Your task to perform on an android device: turn notification dots on Image 0: 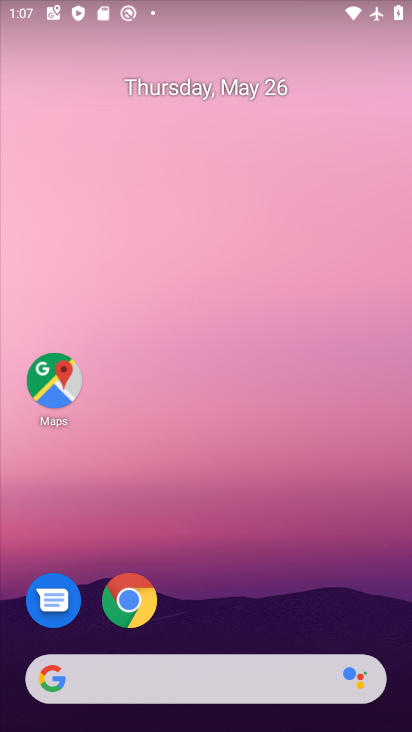
Step 0: drag from (278, 558) to (277, 145)
Your task to perform on an android device: turn notification dots on Image 1: 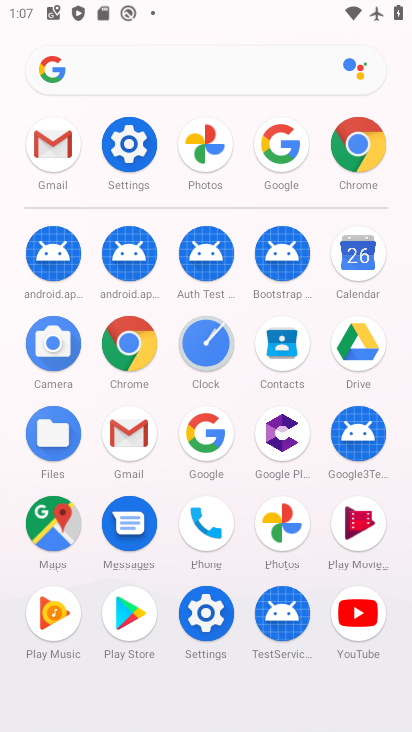
Step 1: click (140, 128)
Your task to perform on an android device: turn notification dots on Image 2: 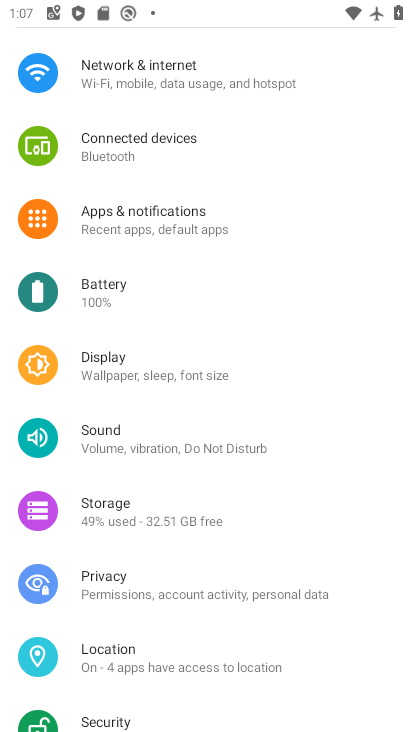
Step 2: drag from (216, 501) to (229, 605)
Your task to perform on an android device: turn notification dots on Image 3: 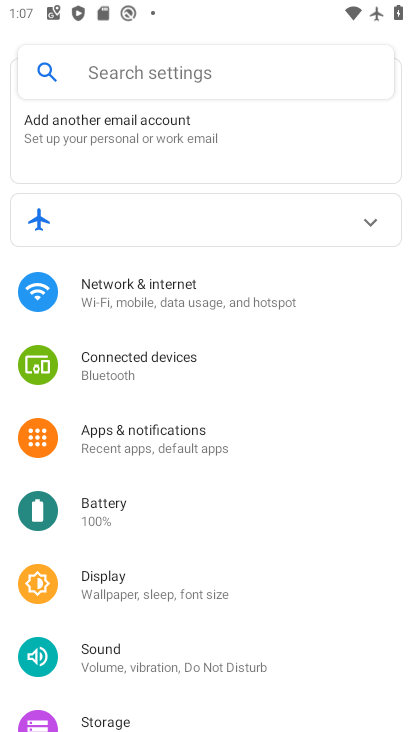
Step 3: click (181, 427)
Your task to perform on an android device: turn notification dots on Image 4: 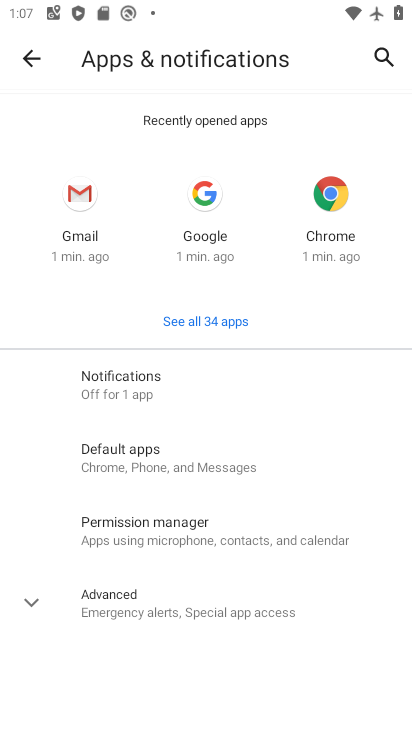
Step 4: click (154, 387)
Your task to perform on an android device: turn notification dots on Image 5: 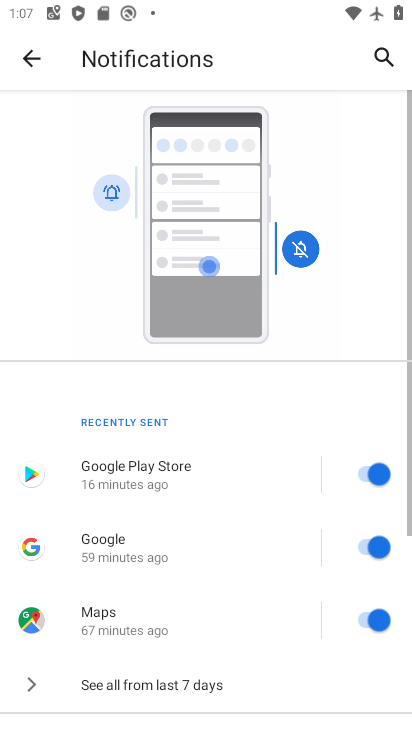
Step 5: drag from (223, 489) to (230, 16)
Your task to perform on an android device: turn notification dots on Image 6: 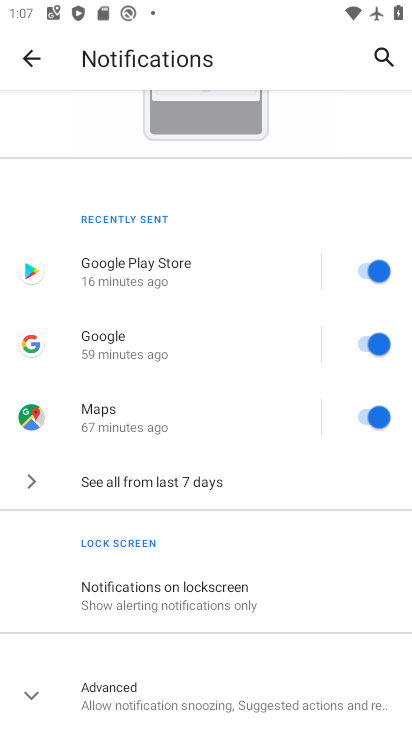
Step 6: click (175, 709)
Your task to perform on an android device: turn notification dots on Image 7: 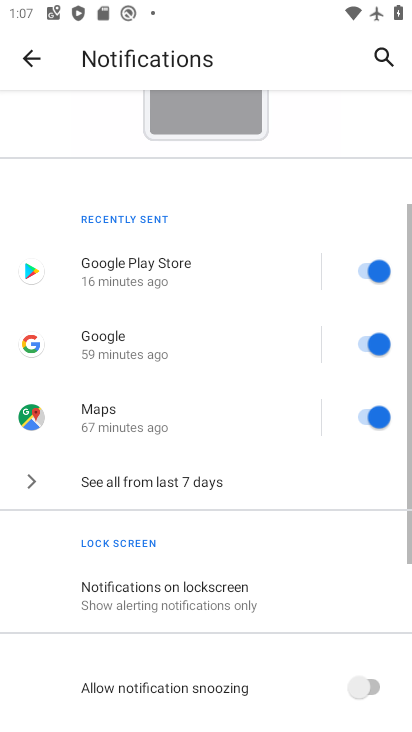
Step 7: drag from (275, 583) to (259, 106)
Your task to perform on an android device: turn notification dots on Image 8: 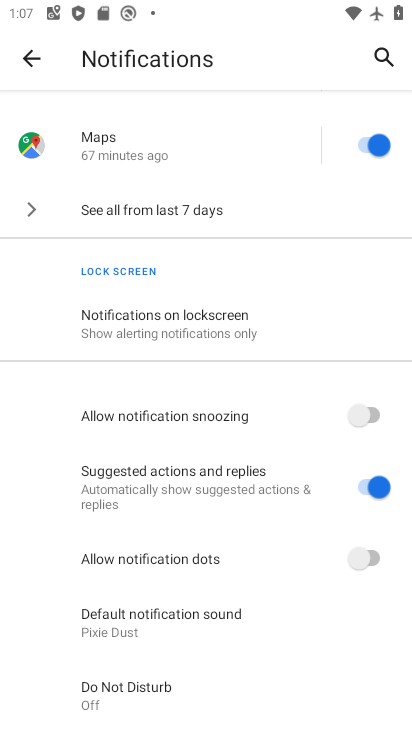
Step 8: click (379, 566)
Your task to perform on an android device: turn notification dots on Image 9: 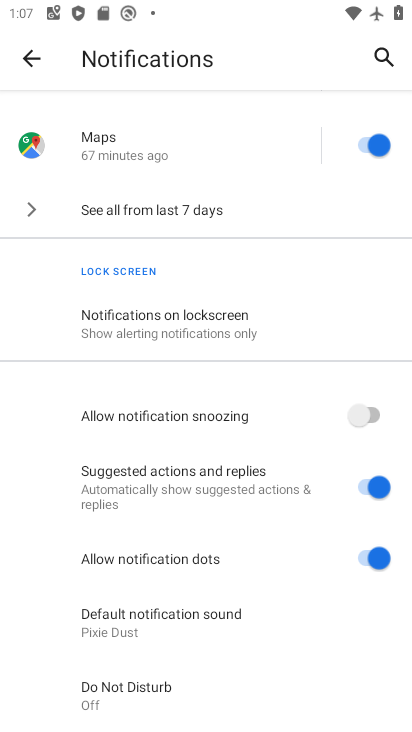
Step 9: task complete